Your task to perform on an android device: install app "Life360: Find Family & Friends" Image 0: 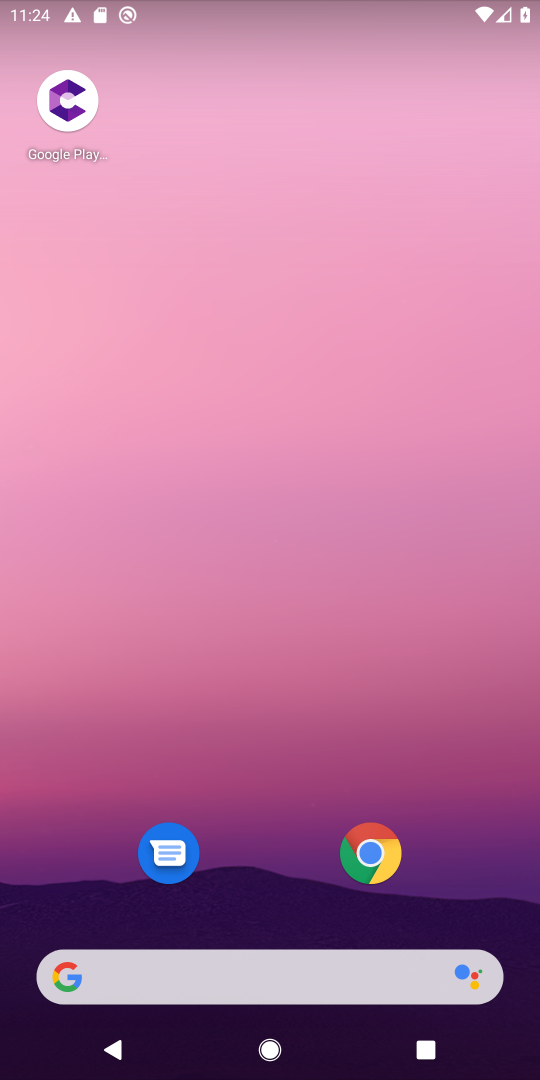
Step 0: drag from (318, 940) to (300, 417)
Your task to perform on an android device: install app "Life360: Find Family & Friends" Image 1: 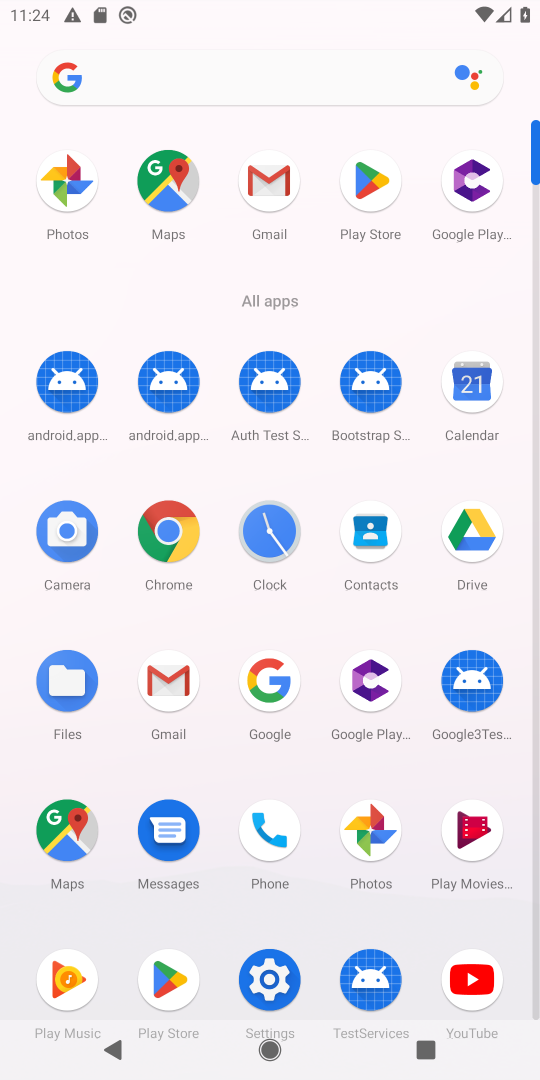
Step 1: click (370, 183)
Your task to perform on an android device: install app "Life360: Find Family & Friends" Image 2: 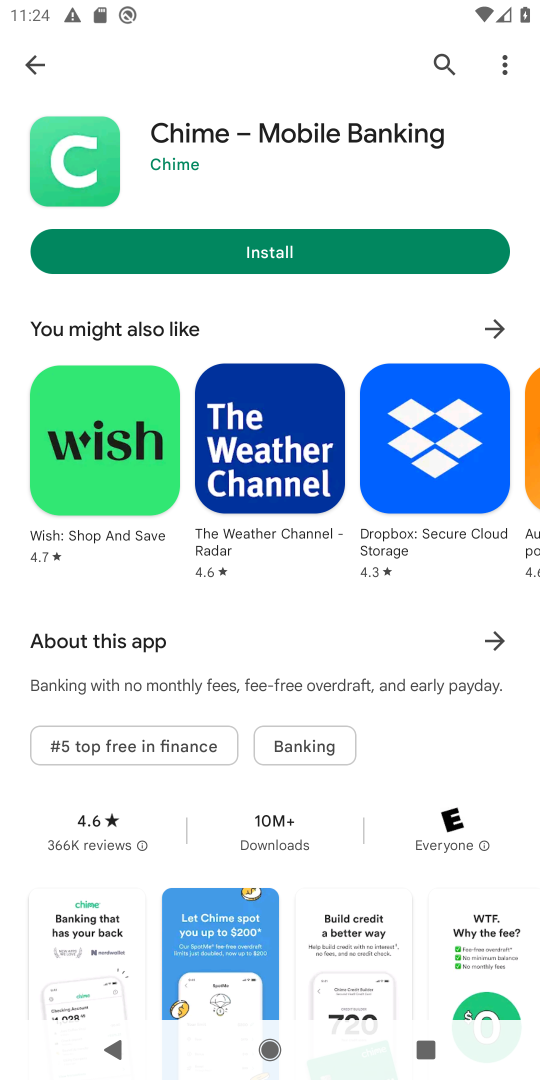
Step 2: click (31, 56)
Your task to perform on an android device: install app "Life360: Find Family & Friends" Image 3: 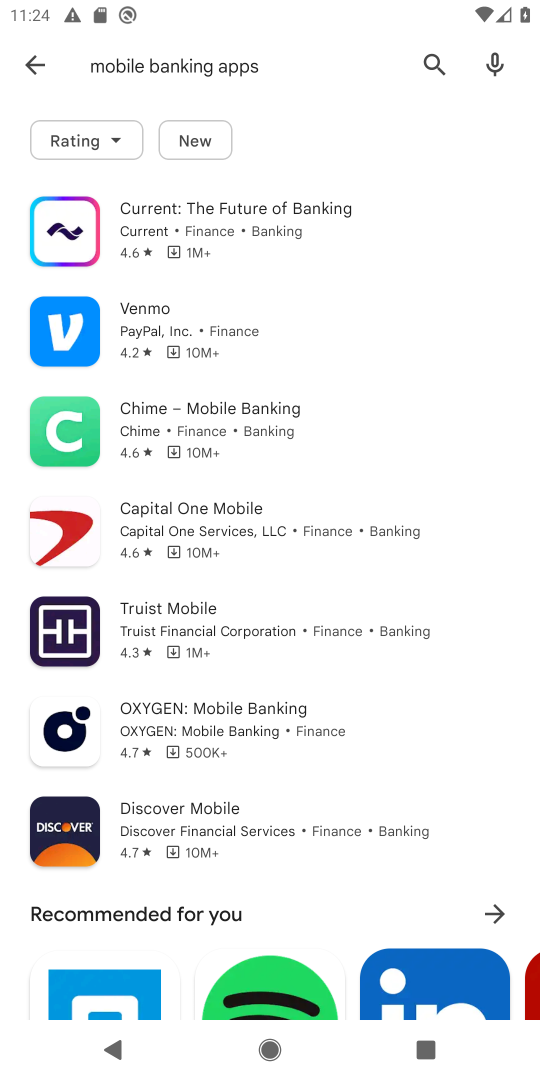
Step 3: click (31, 56)
Your task to perform on an android device: install app "Life360: Find Family & Friends" Image 4: 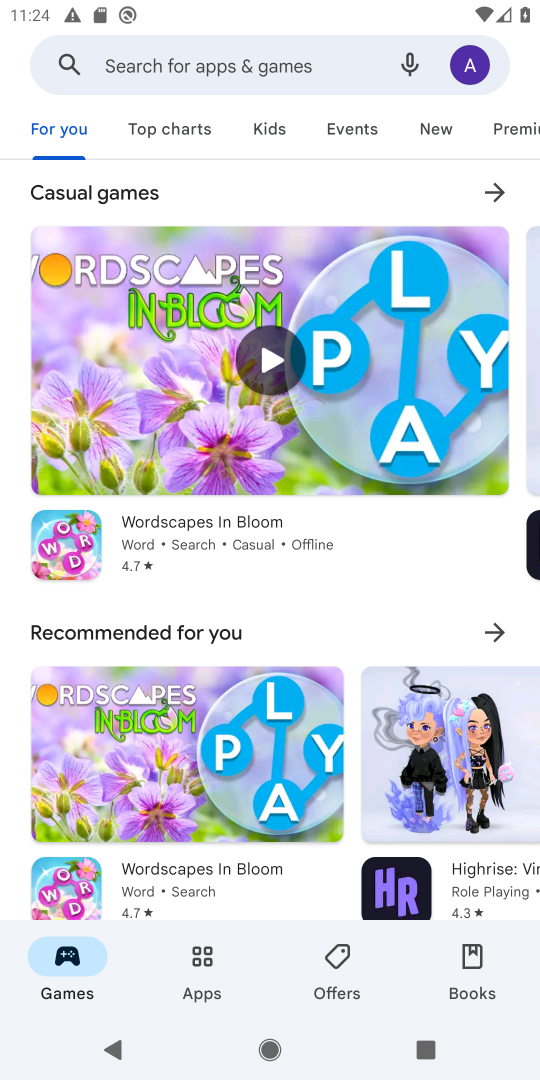
Step 4: click (183, 41)
Your task to perform on an android device: install app "Life360: Find Family & Friends" Image 5: 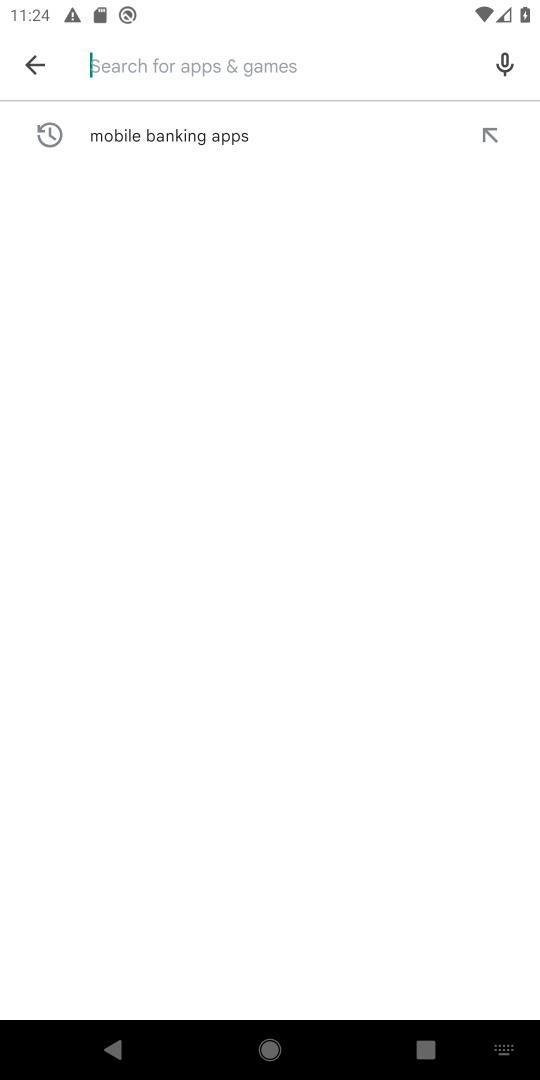
Step 5: type "Life360: Find Family & Friends "
Your task to perform on an android device: install app "Life360: Find Family & Friends" Image 6: 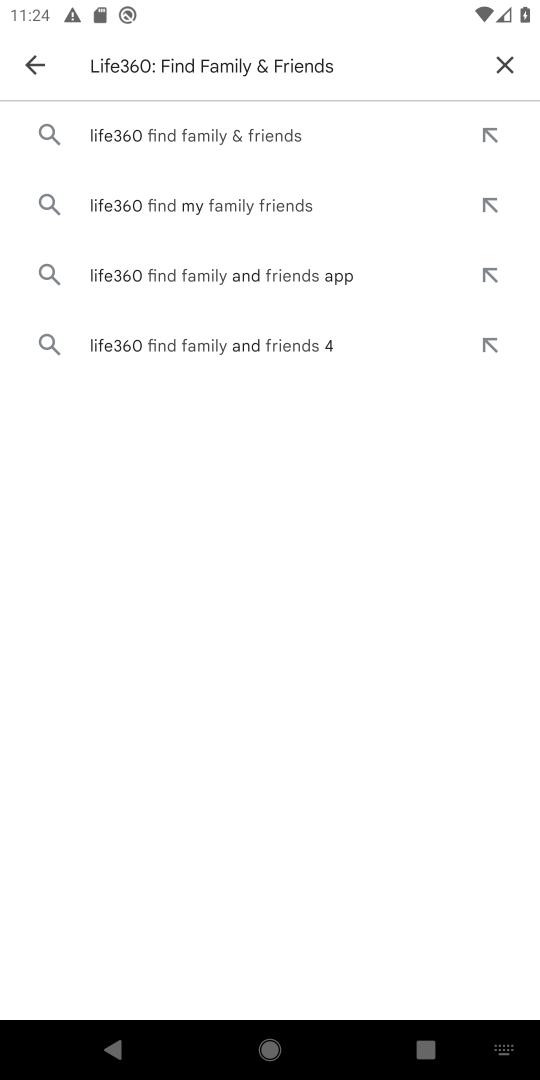
Step 6: click (192, 143)
Your task to perform on an android device: install app "Life360: Find Family & Friends" Image 7: 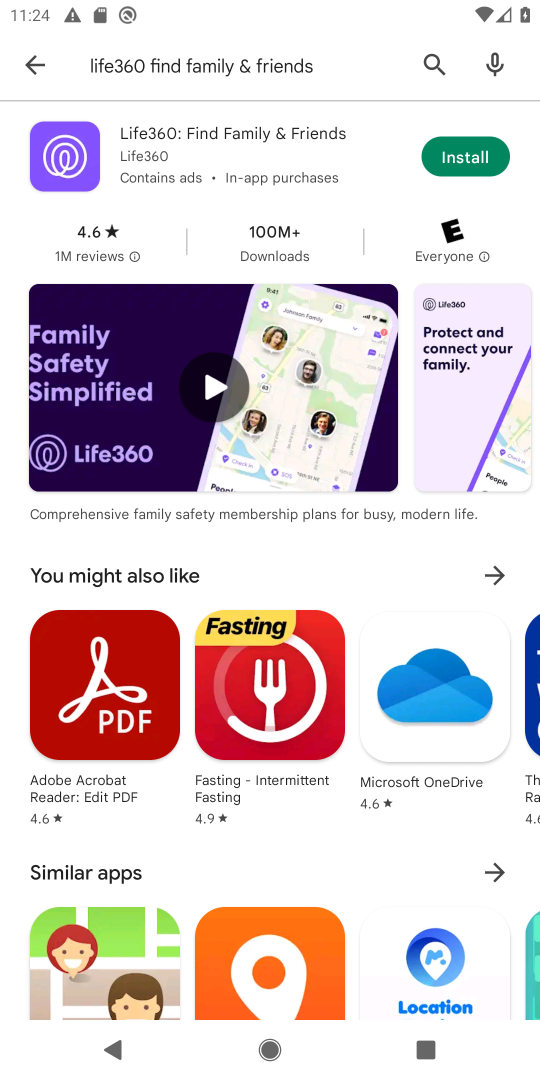
Step 7: click (488, 146)
Your task to perform on an android device: install app "Life360: Find Family & Friends" Image 8: 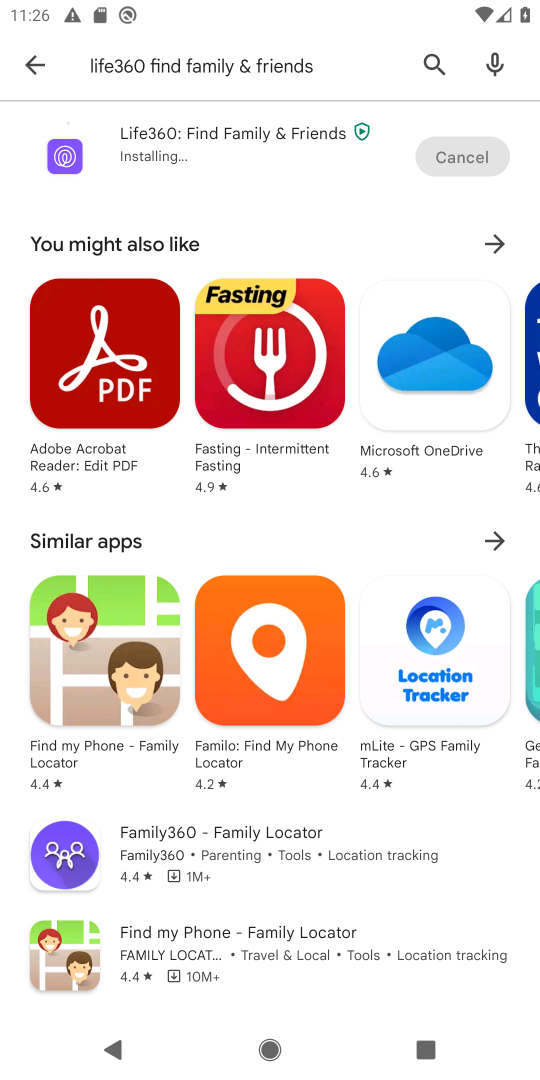
Step 8: task complete